Your task to perform on an android device: Search for sushi restaurants on Maps Image 0: 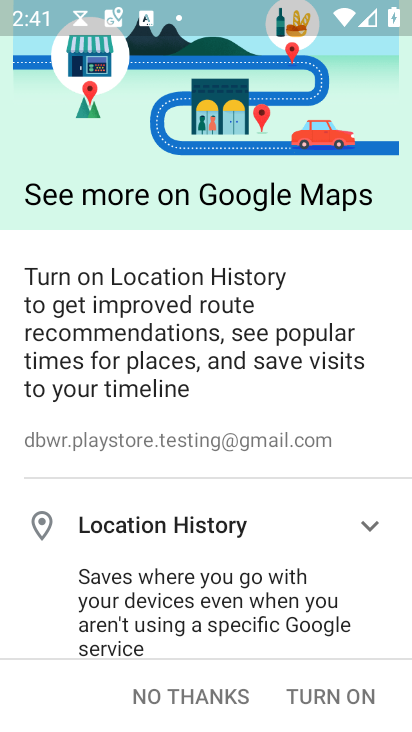
Step 0: click (213, 711)
Your task to perform on an android device: Search for sushi restaurants on Maps Image 1: 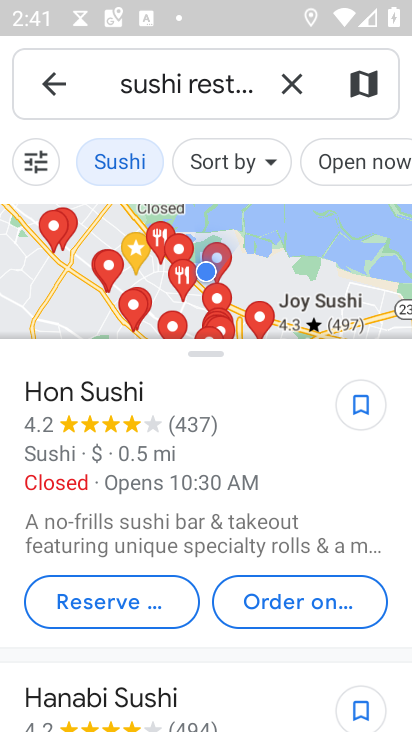
Step 1: task complete